Your task to perform on an android device: turn smart compose on in the gmail app Image 0: 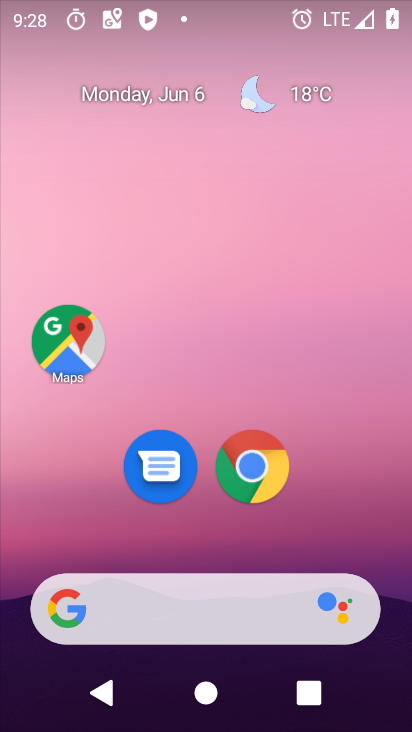
Step 0: drag from (351, 13) to (273, 0)
Your task to perform on an android device: turn smart compose on in the gmail app Image 1: 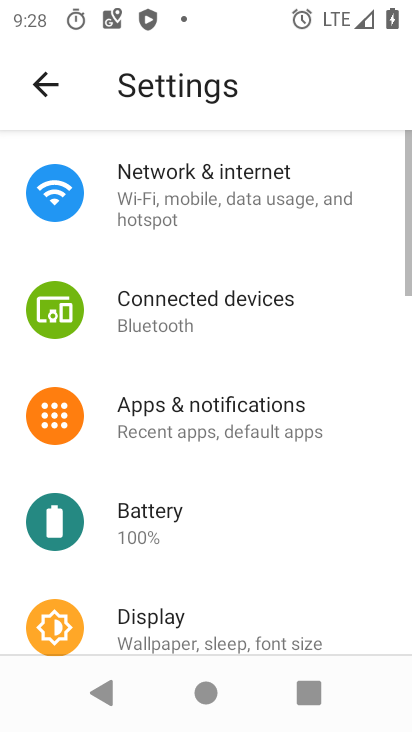
Step 1: drag from (209, 530) to (283, 96)
Your task to perform on an android device: turn smart compose on in the gmail app Image 2: 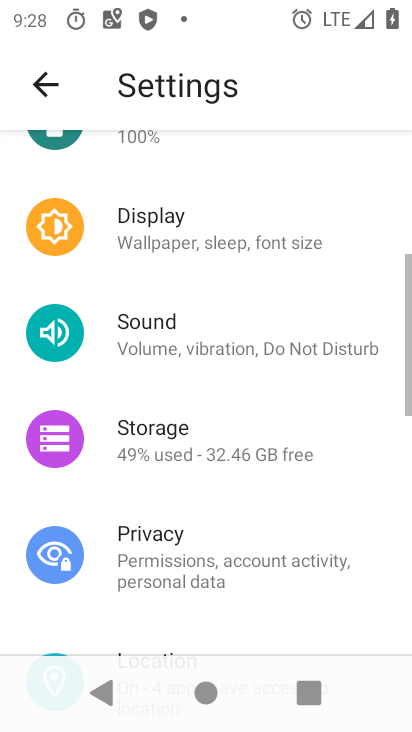
Step 2: press home button
Your task to perform on an android device: turn smart compose on in the gmail app Image 3: 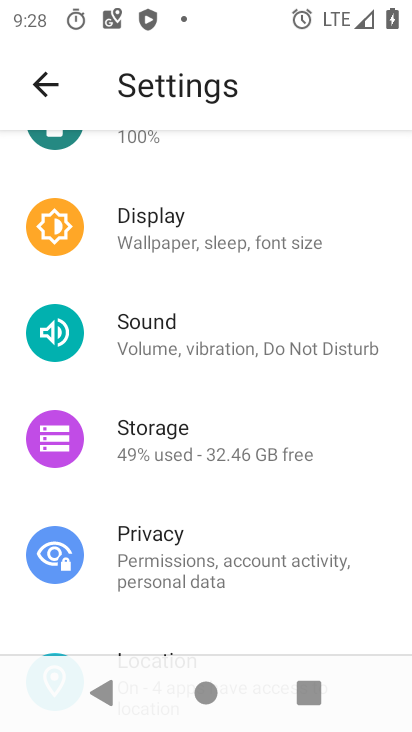
Step 3: drag from (174, 483) to (244, 44)
Your task to perform on an android device: turn smart compose on in the gmail app Image 4: 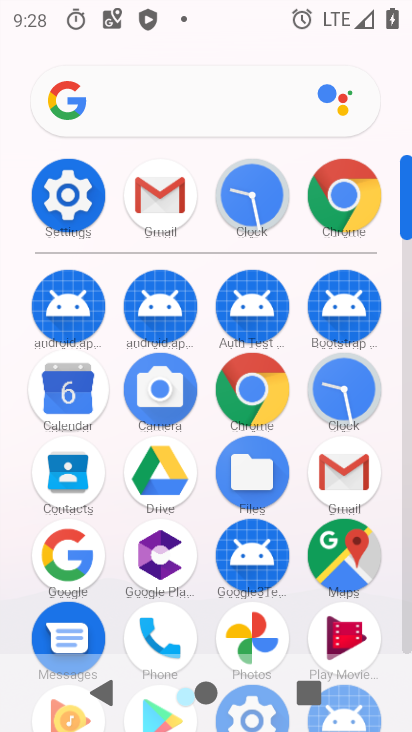
Step 4: click (135, 199)
Your task to perform on an android device: turn smart compose on in the gmail app Image 5: 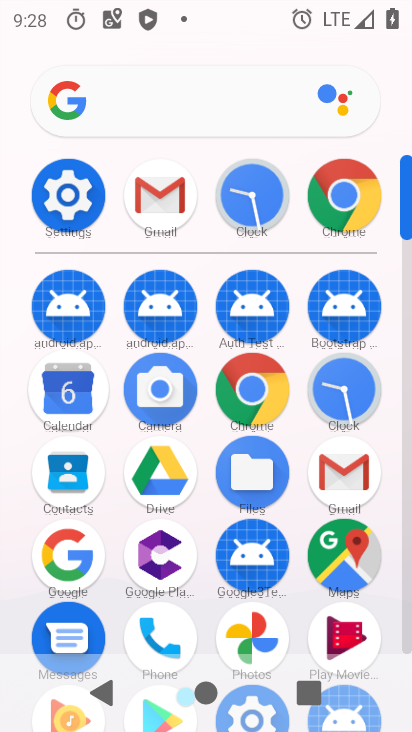
Step 5: click (139, 200)
Your task to perform on an android device: turn smart compose on in the gmail app Image 6: 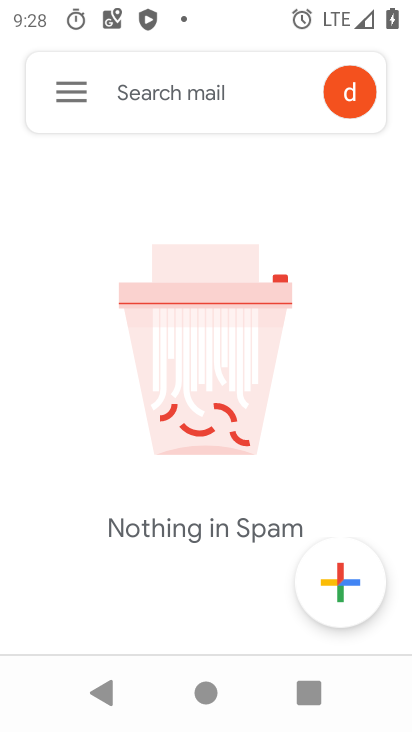
Step 6: click (58, 84)
Your task to perform on an android device: turn smart compose on in the gmail app Image 7: 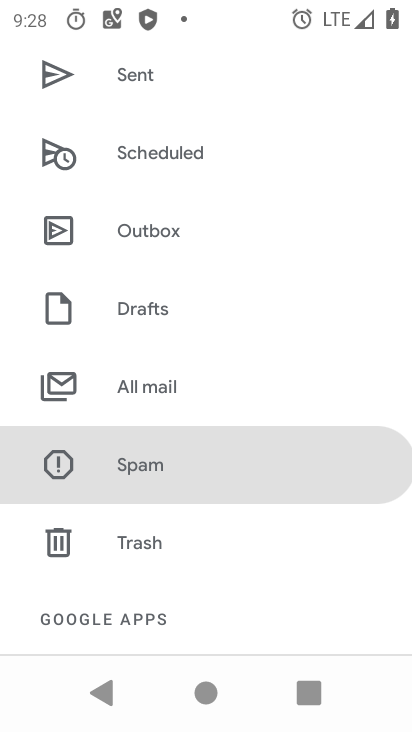
Step 7: drag from (210, 529) to (318, 26)
Your task to perform on an android device: turn smart compose on in the gmail app Image 8: 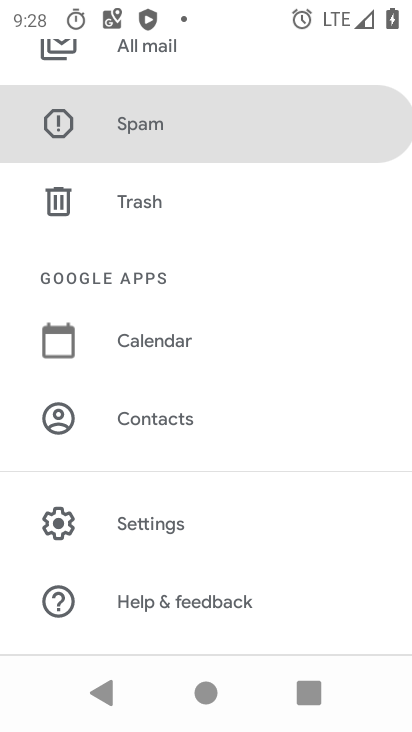
Step 8: click (167, 522)
Your task to perform on an android device: turn smart compose on in the gmail app Image 9: 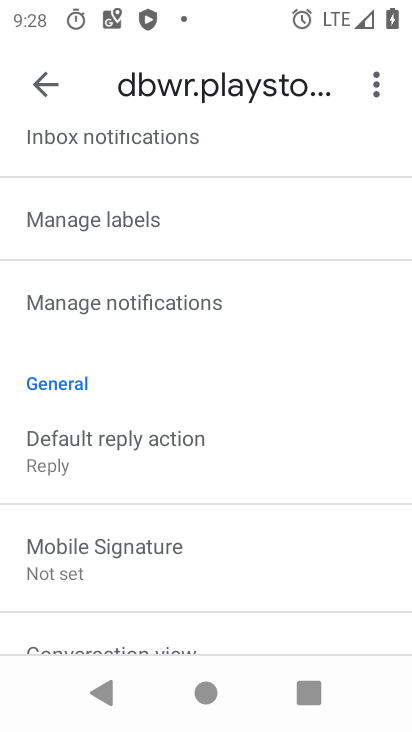
Step 9: task complete